Your task to perform on an android device: Open display settings Image 0: 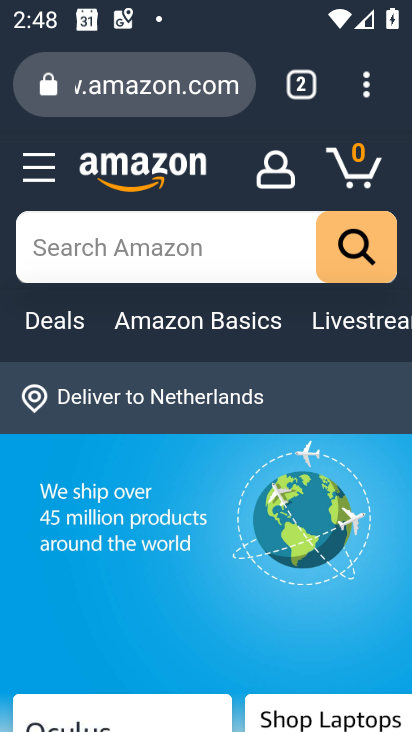
Step 0: press home button
Your task to perform on an android device: Open display settings Image 1: 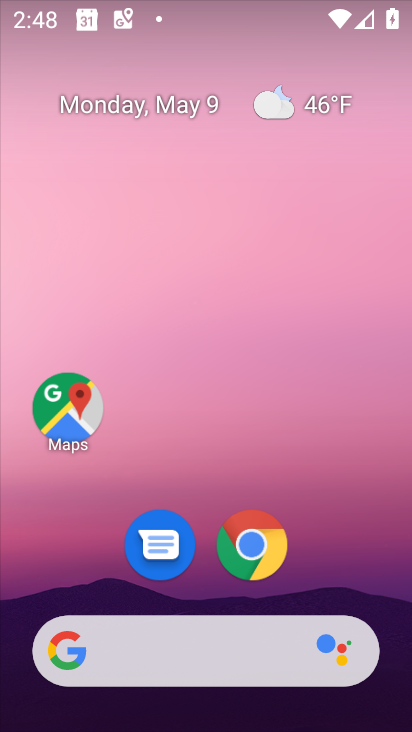
Step 1: drag from (211, 591) to (268, 157)
Your task to perform on an android device: Open display settings Image 2: 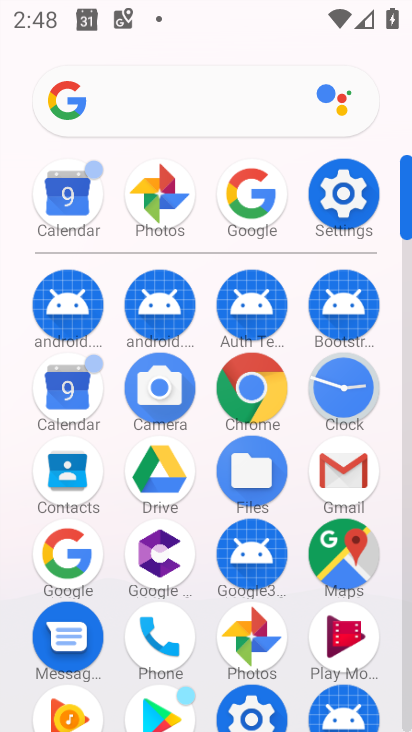
Step 2: click (317, 180)
Your task to perform on an android device: Open display settings Image 3: 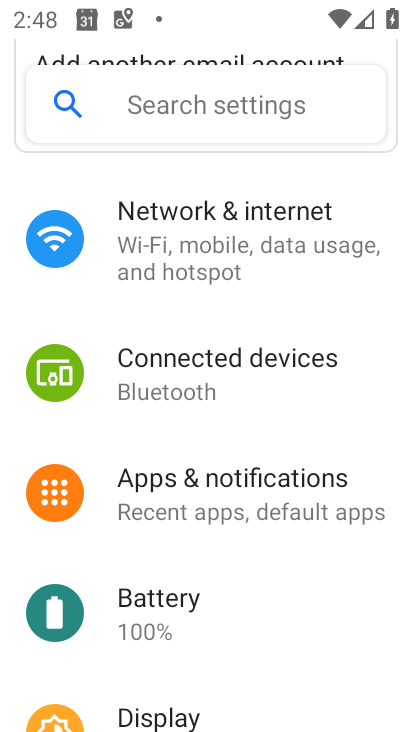
Step 3: drag from (223, 263) to (228, 547)
Your task to perform on an android device: Open display settings Image 4: 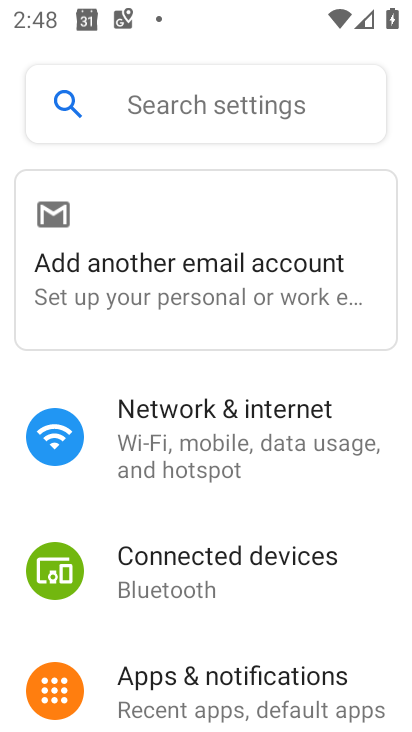
Step 4: drag from (219, 622) to (286, 256)
Your task to perform on an android device: Open display settings Image 5: 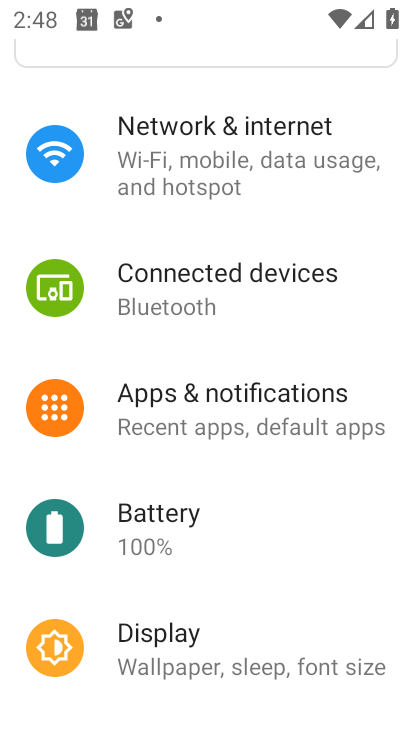
Step 5: click (195, 641)
Your task to perform on an android device: Open display settings Image 6: 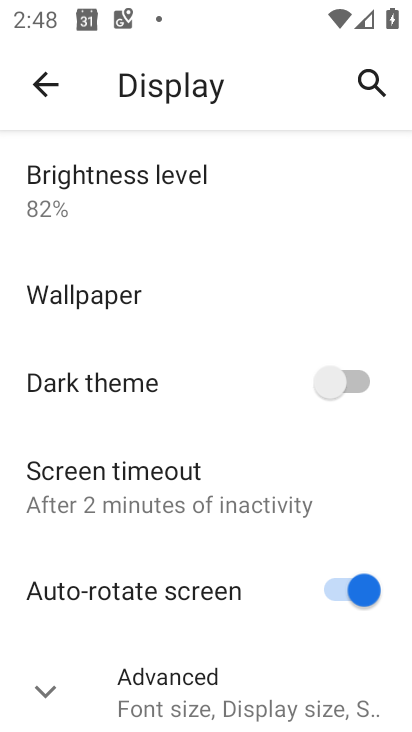
Step 6: task complete